Your task to perform on an android device: Search for Mexican restaurants on Maps Image 0: 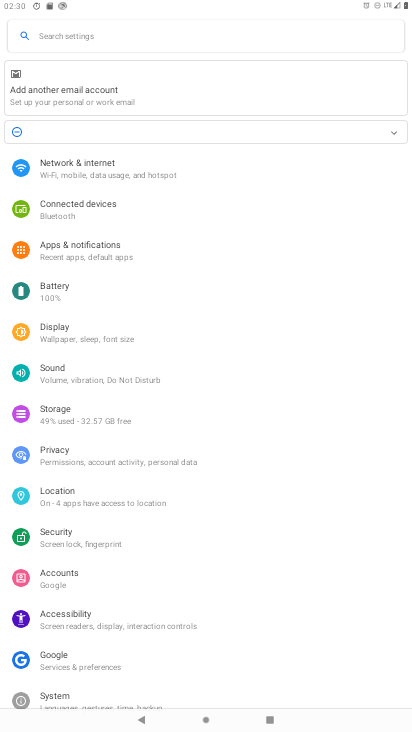
Step 0: press home button
Your task to perform on an android device: Search for Mexican restaurants on Maps Image 1: 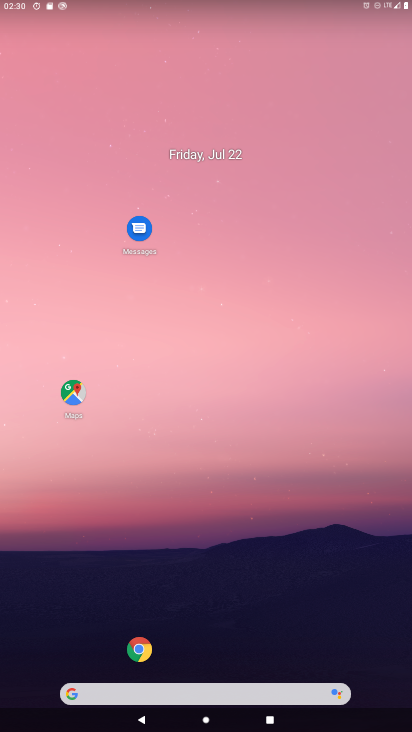
Step 1: click (105, 689)
Your task to perform on an android device: Search for Mexican restaurants on Maps Image 2: 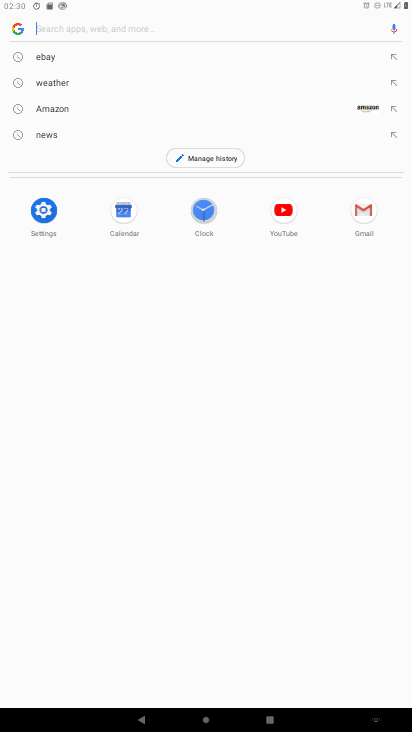
Step 2: type "Mexican restaurants "
Your task to perform on an android device: Search for Mexican restaurants on Maps Image 3: 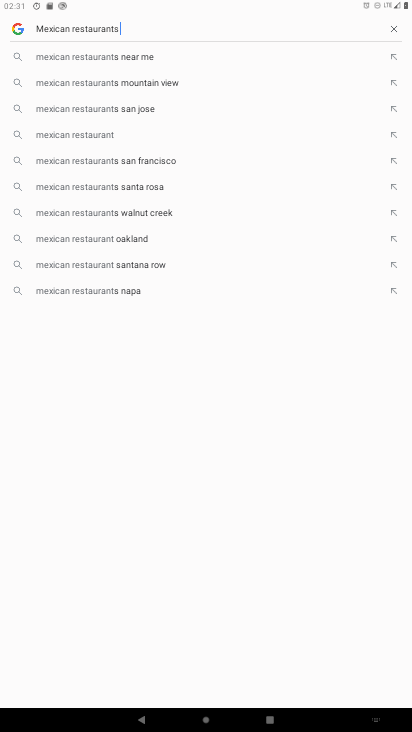
Step 3: type ""
Your task to perform on an android device: Search for Mexican restaurants on Maps Image 4: 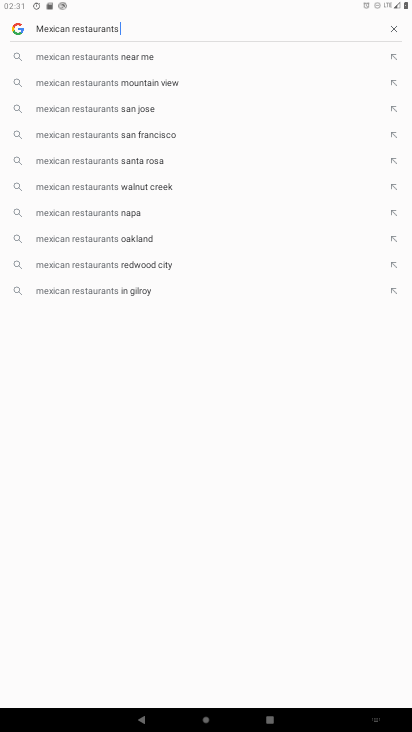
Step 4: type ""
Your task to perform on an android device: Search for Mexican restaurants on Maps Image 5: 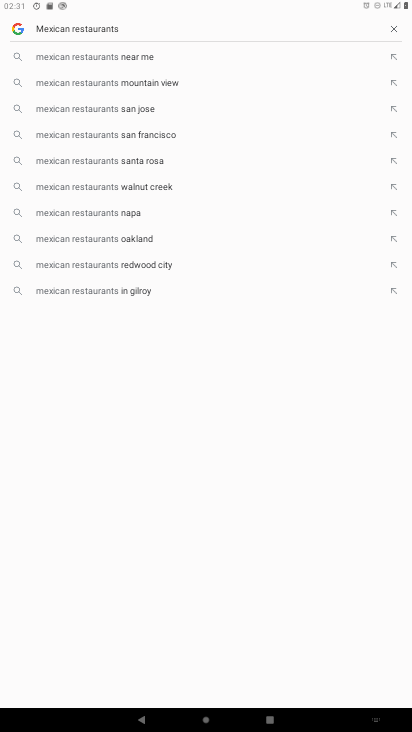
Step 5: type ""
Your task to perform on an android device: Search for Mexican restaurants on Maps Image 6: 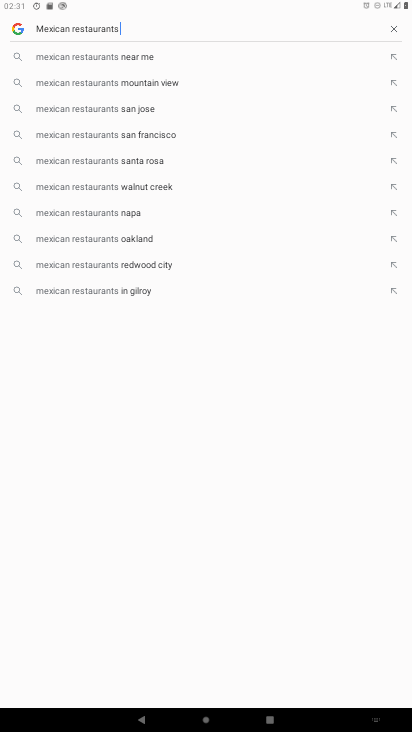
Step 6: task complete